Your task to perform on an android device: When is my next appointment? Image 0: 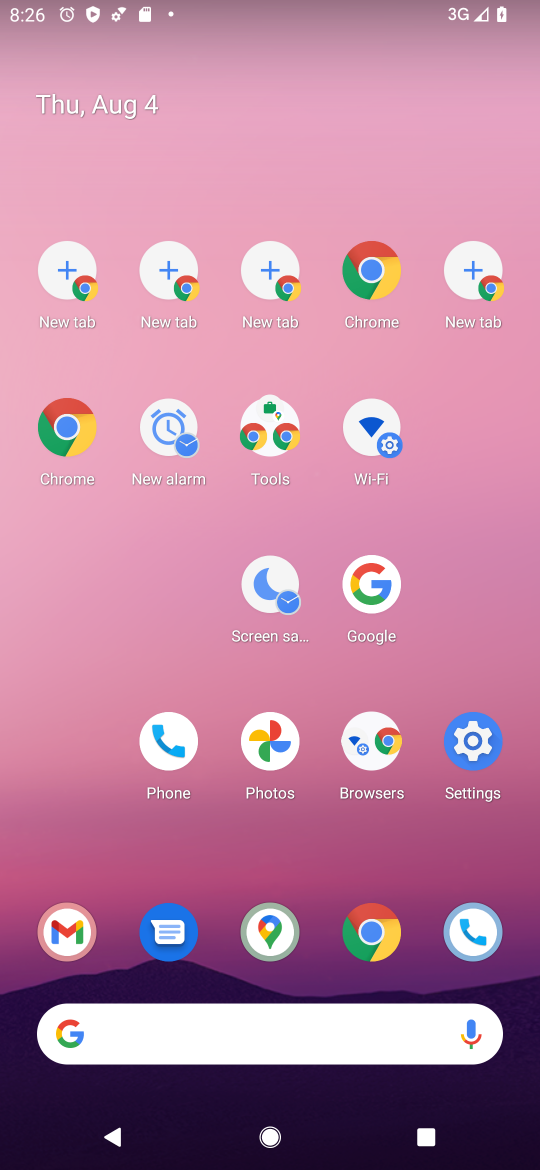
Step 0: drag from (190, 346) to (274, 275)
Your task to perform on an android device: When is my next appointment? Image 1: 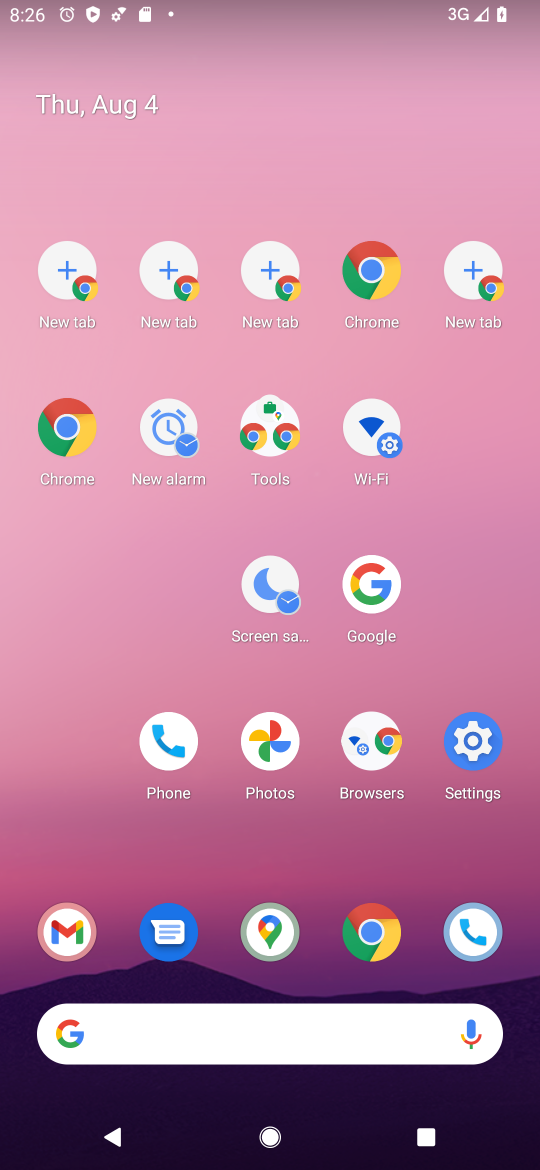
Step 1: drag from (445, 659) to (419, 311)
Your task to perform on an android device: When is my next appointment? Image 2: 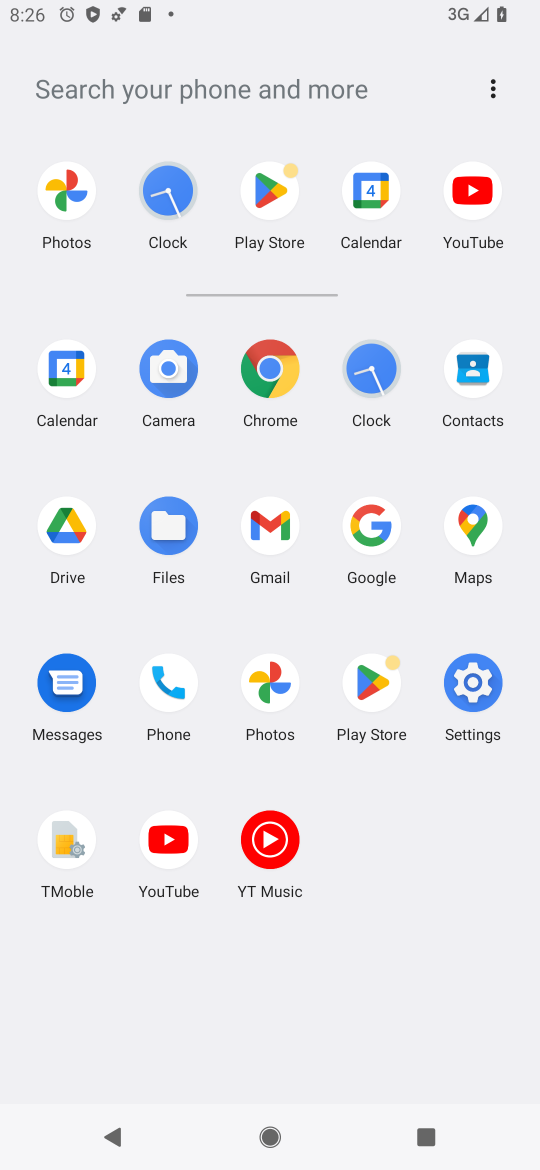
Step 2: click (357, 193)
Your task to perform on an android device: When is my next appointment? Image 3: 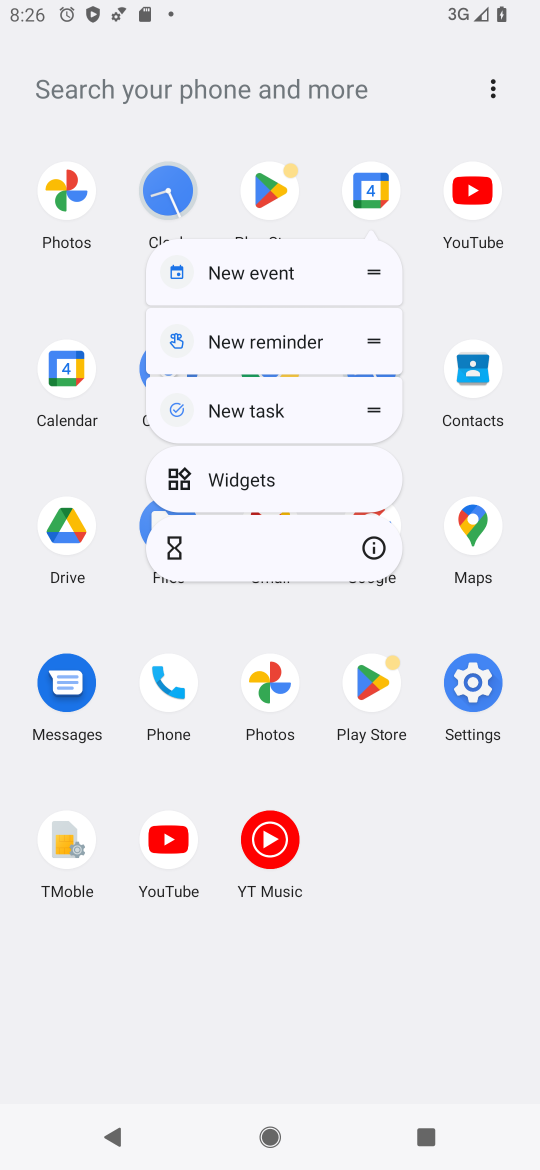
Step 3: click (354, 190)
Your task to perform on an android device: When is my next appointment? Image 4: 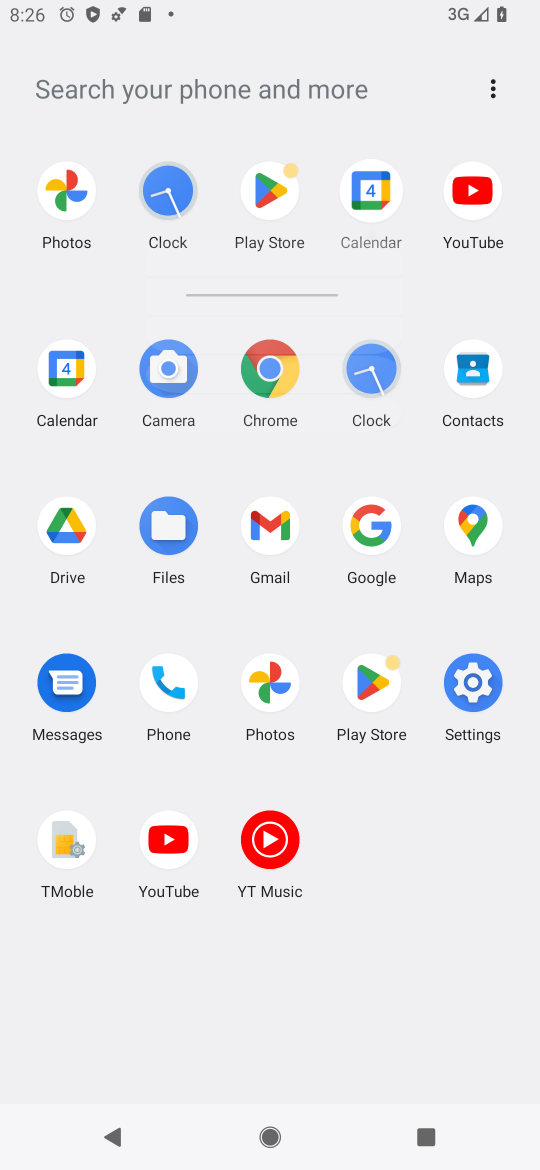
Step 4: click (291, 280)
Your task to perform on an android device: When is my next appointment? Image 5: 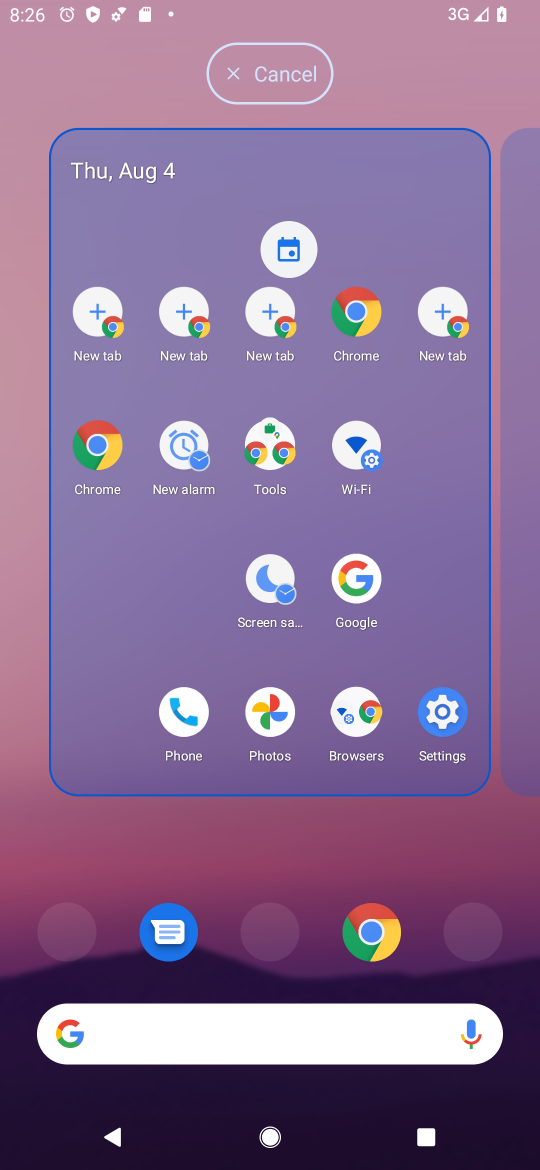
Step 5: task complete